Your task to perform on an android device: Open calendar and show me the second week of next month Image 0: 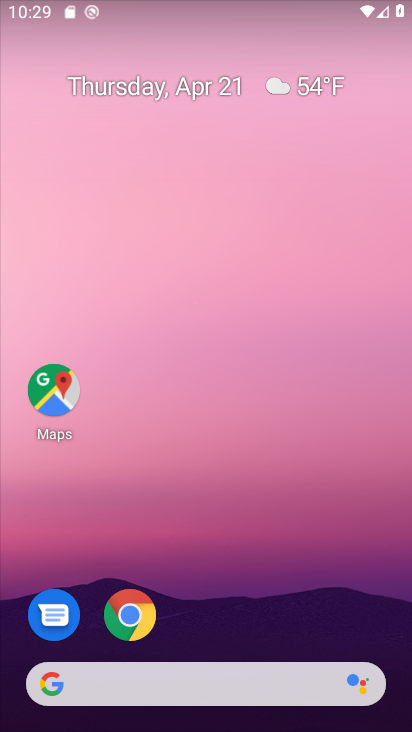
Step 0: drag from (320, 647) to (317, 131)
Your task to perform on an android device: Open calendar and show me the second week of next month Image 1: 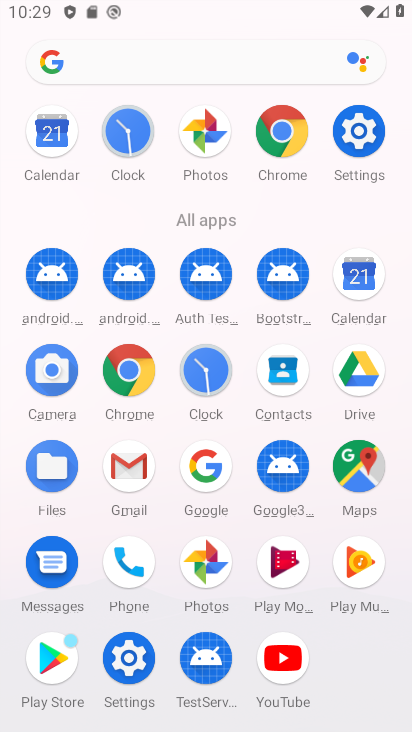
Step 1: click (359, 283)
Your task to perform on an android device: Open calendar and show me the second week of next month Image 2: 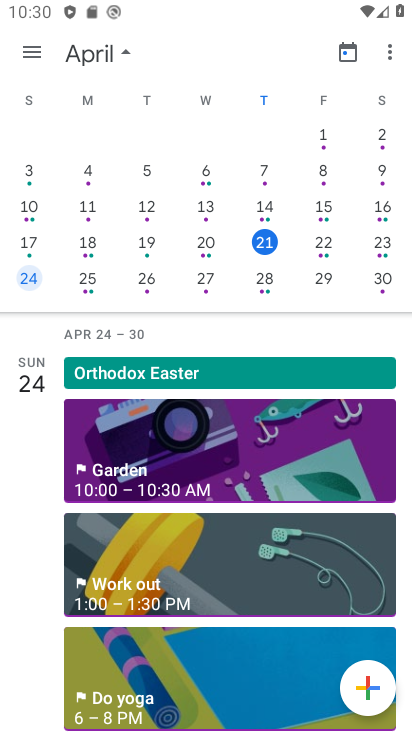
Step 2: drag from (368, 218) to (18, 247)
Your task to perform on an android device: Open calendar and show me the second week of next month Image 3: 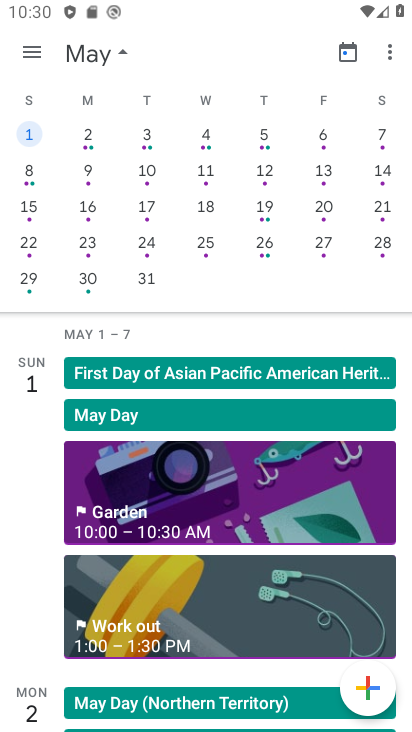
Step 3: click (36, 175)
Your task to perform on an android device: Open calendar and show me the second week of next month Image 4: 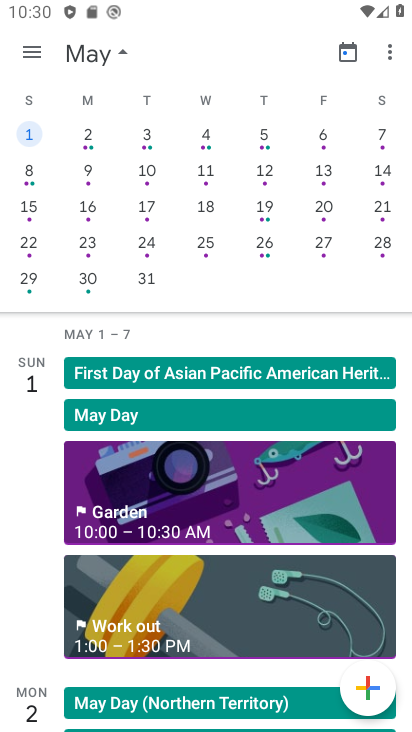
Step 4: click (42, 179)
Your task to perform on an android device: Open calendar and show me the second week of next month Image 5: 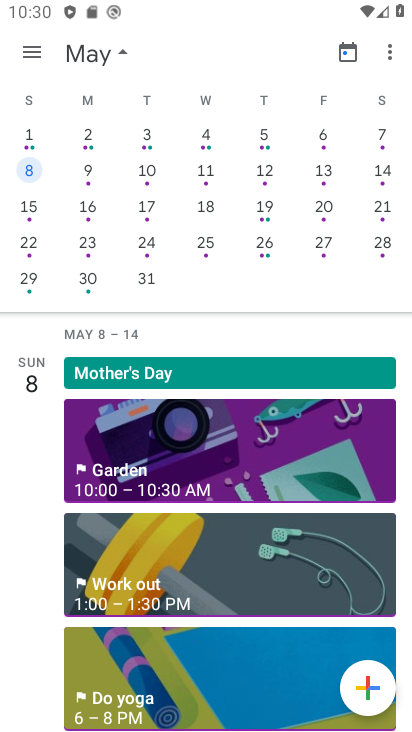
Step 5: task complete